Your task to perform on an android device: Open display settings Image 0: 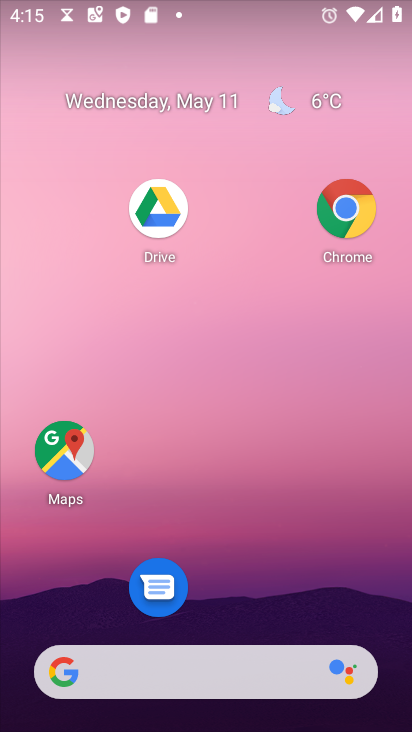
Step 0: drag from (266, 568) to (253, 101)
Your task to perform on an android device: Open display settings Image 1: 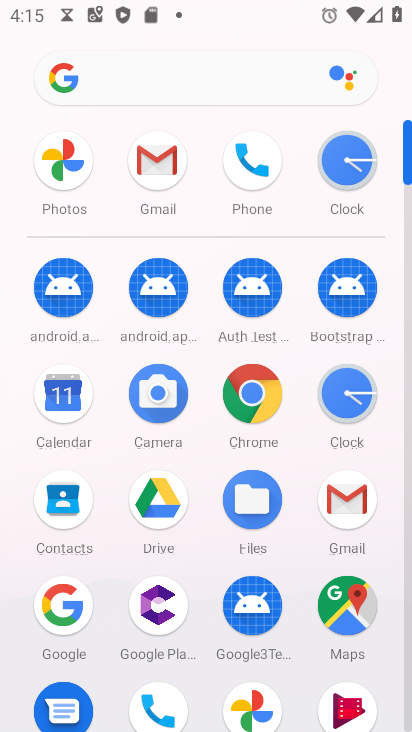
Step 1: drag from (201, 611) to (201, 339)
Your task to perform on an android device: Open display settings Image 2: 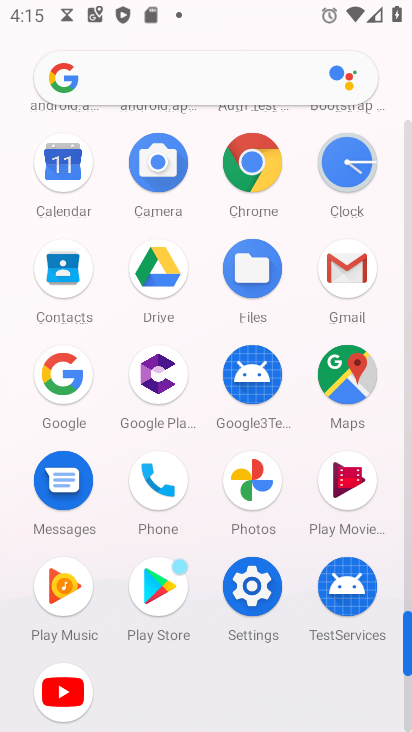
Step 2: click (258, 599)
Your task to perform on an android device: Open display settings Image 3: 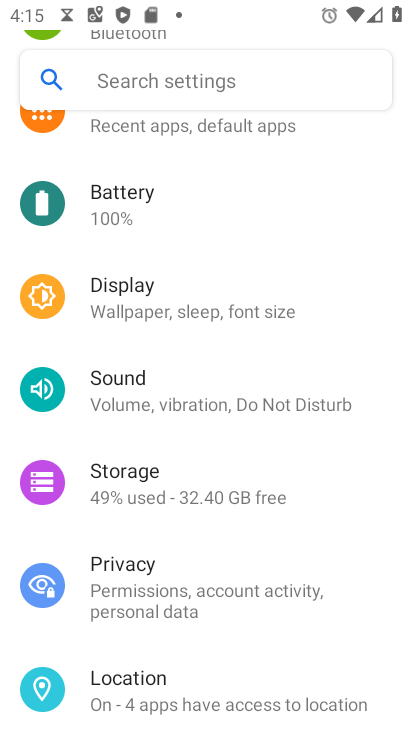
Step 3: click (221, 293)
Your task to perform on an android device: Open display settings Image 4: 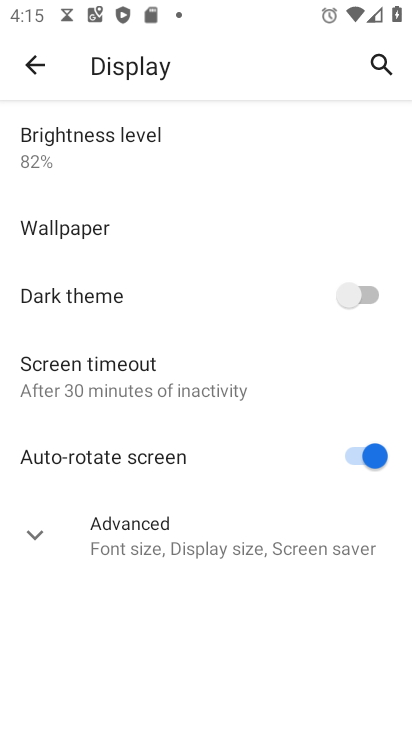
Step 4: task complete